Your task to perform on an android device: Open Google Chrome and open the bookmarks view Image 0: 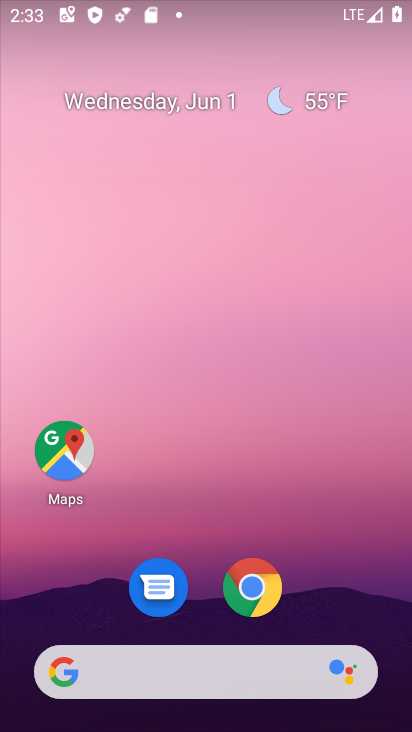
Step 0: click (253, 583)
Your task to perform on an android device: Open Google Chrome and open the bookmarks view Image 1: 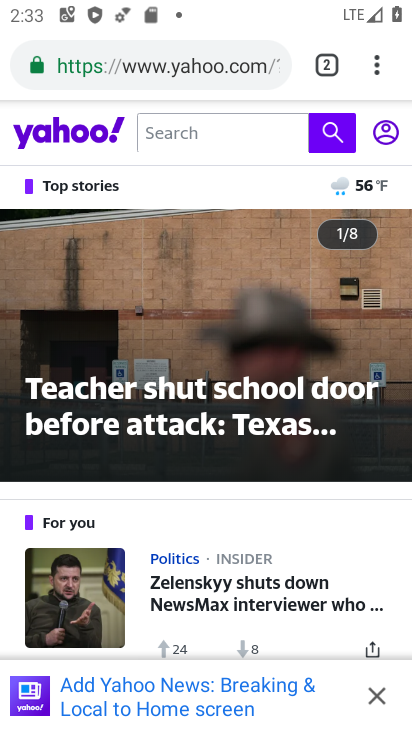
Step 1: task complete